Your task to perform on an android device: install app "Google Photos" Image 0: 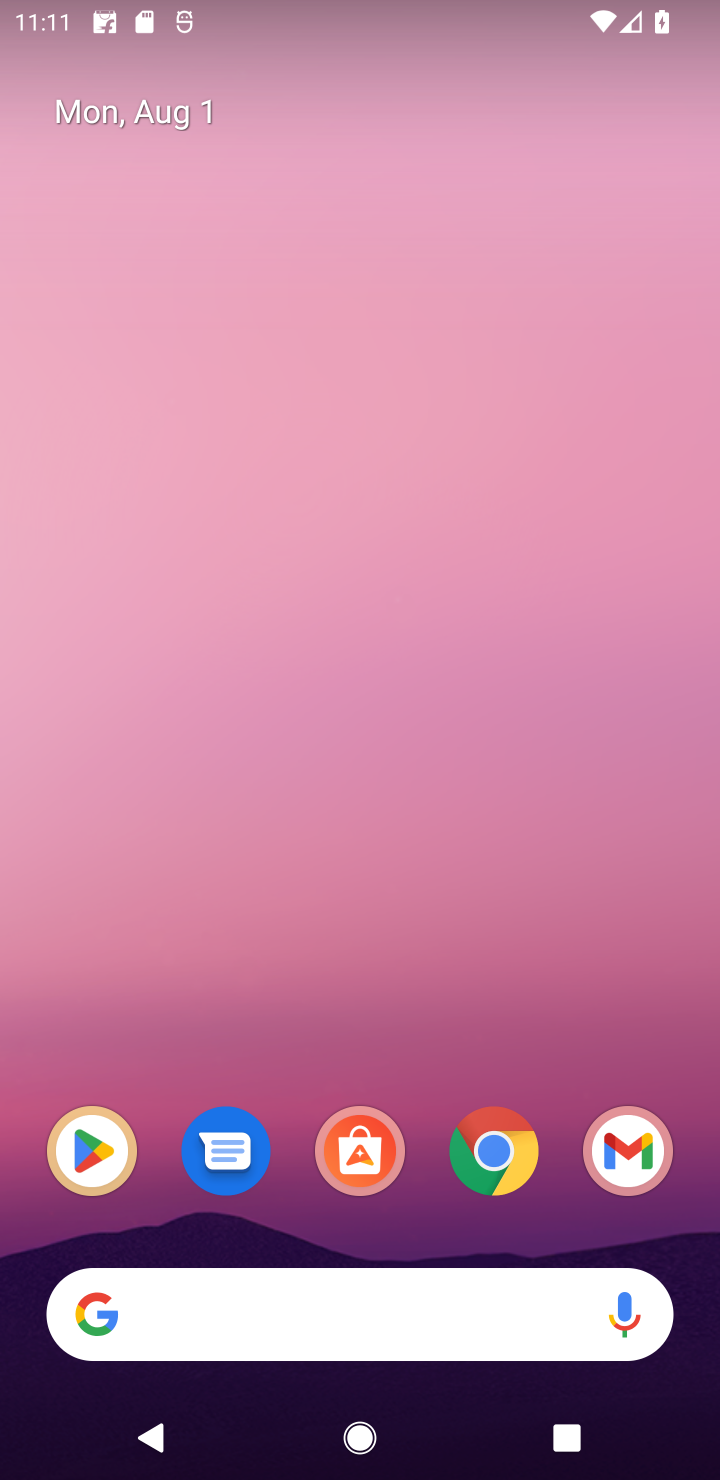
Step 0: click (121, 1161)
Your task to perform on an android device: install app "Google Photos" Image 1: 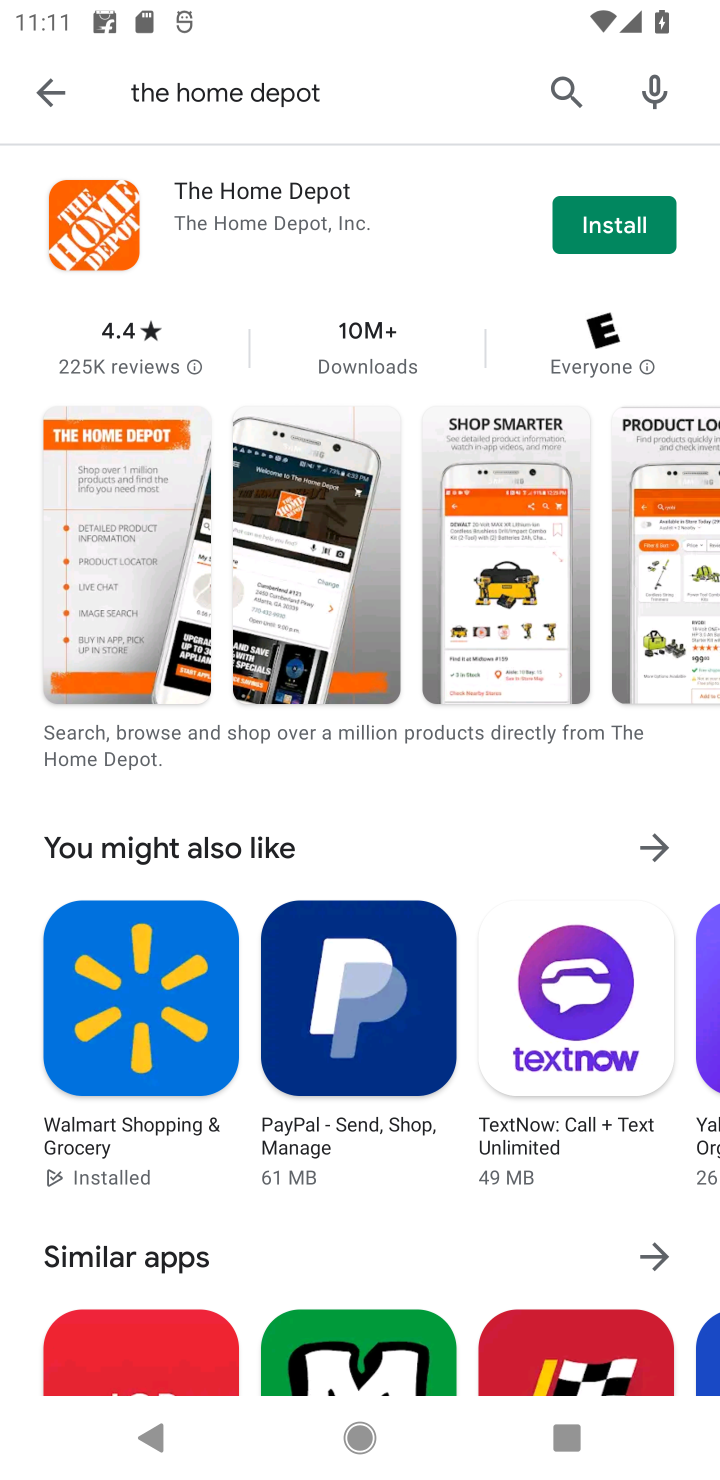
Step 1: click (584, 90)
Your task to perform on an android device: install app "Google Photos" Image 2: 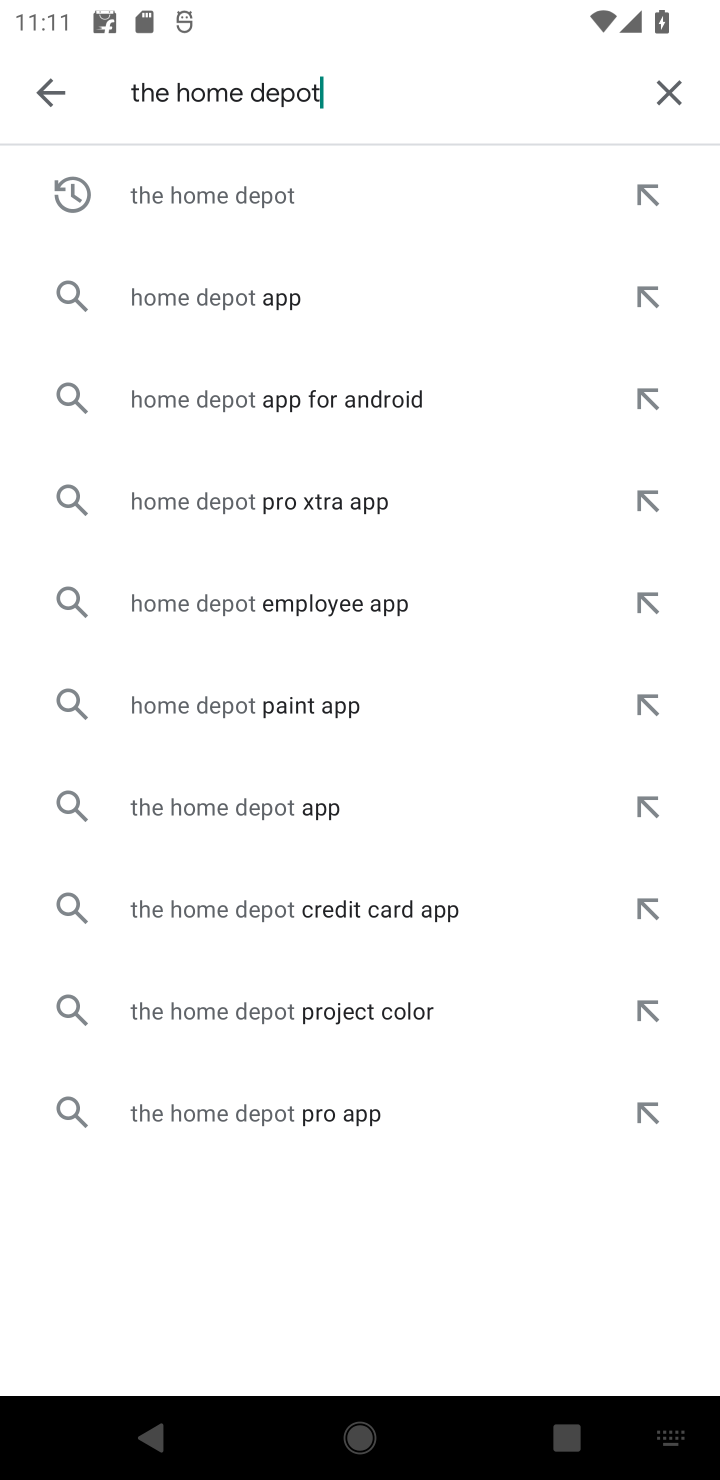
Step 2: click (656, 103)
Your task to perform on an android device: install app "Google Photos" Image 3: 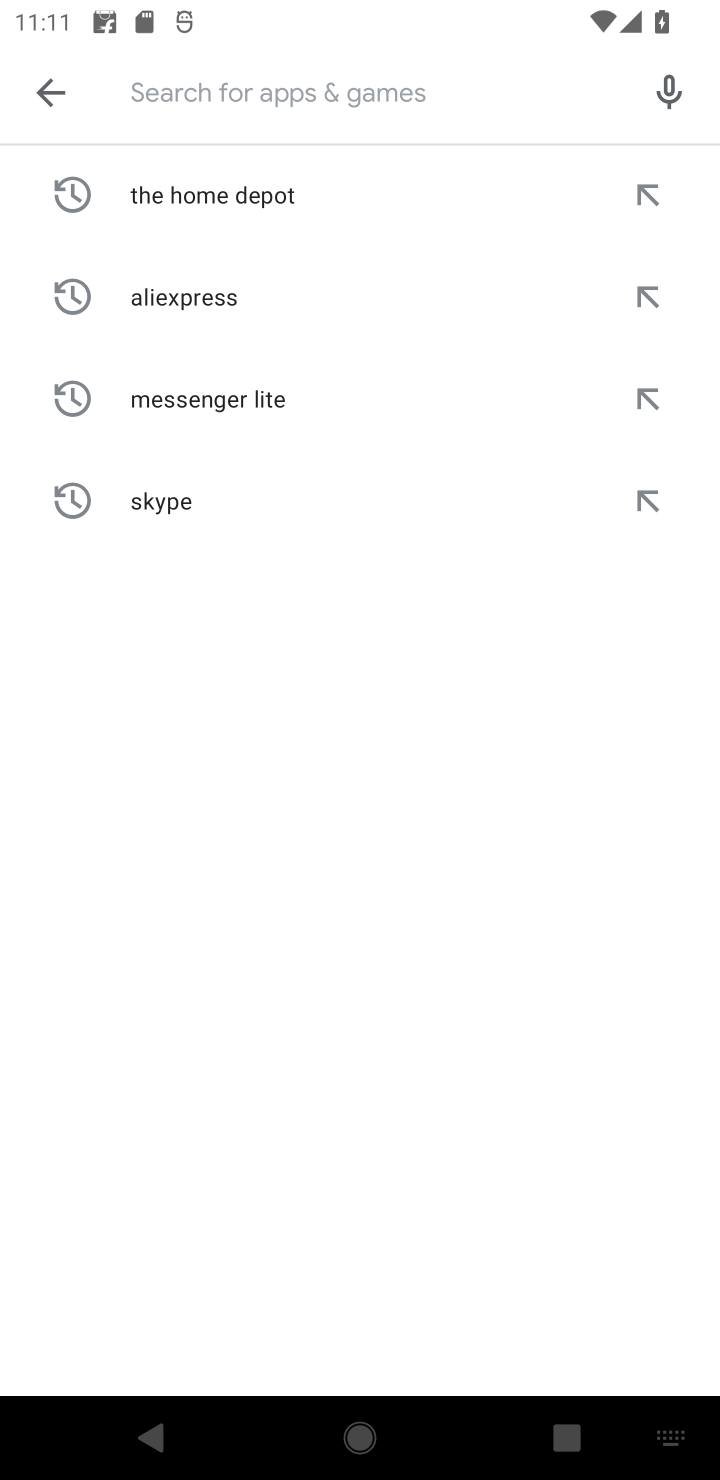
Step 3: type "Google Photos"
Your task to perform on an android device: install app "Google Photos" Image 4: 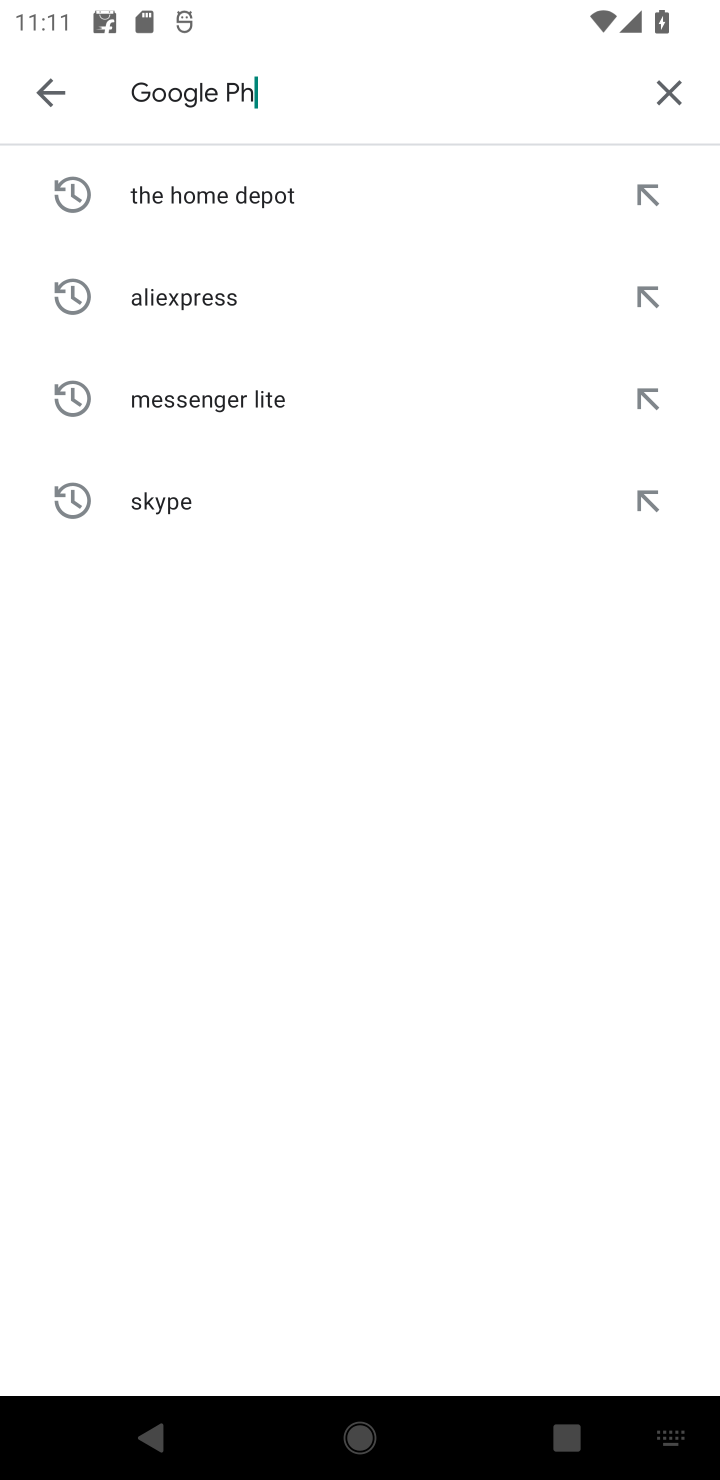
Step 4: type ""
Your task to perform on an android device: install app "Google Photos" Image 5: 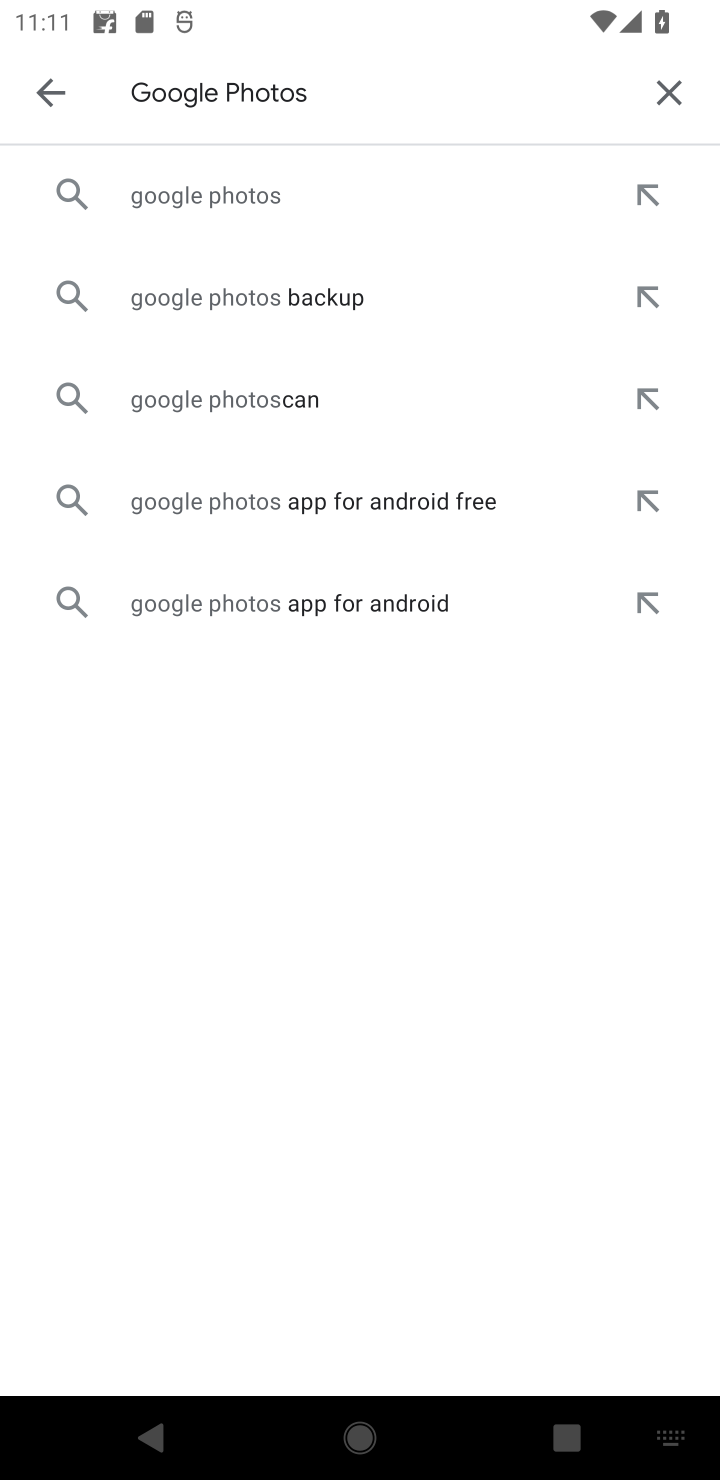
Step 5: click (242, 200)
Your task to perform on an android device: install app "Google Photos" Image 6: 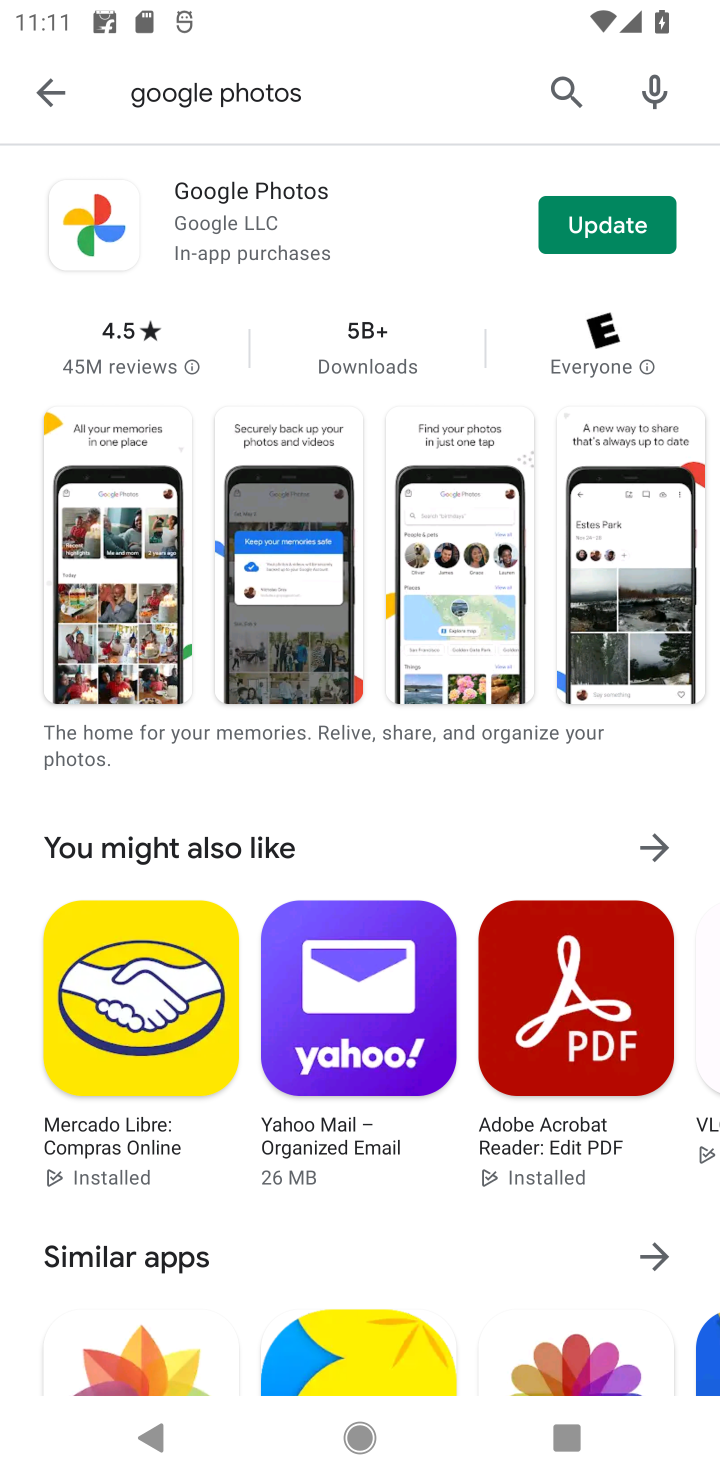
Step 6: task complete